Your task to perform on an android device: Open Youtube and go to "Your channel" Image 0: 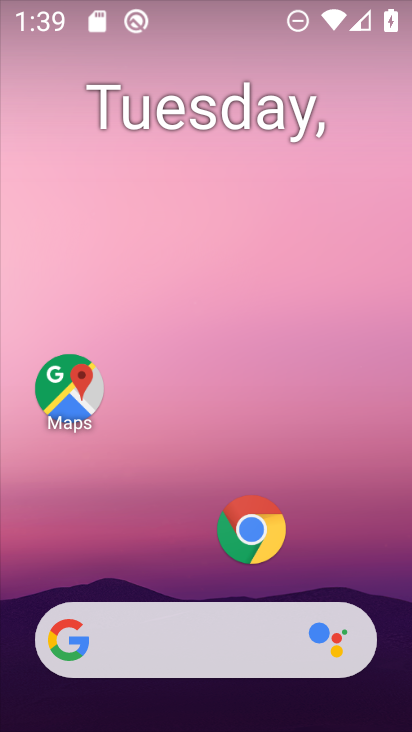
Step 0: drag from (257, 682) to (275, 88)
Your task to perform on an android device: Open Youtube and go to "Your channel" Image 1: 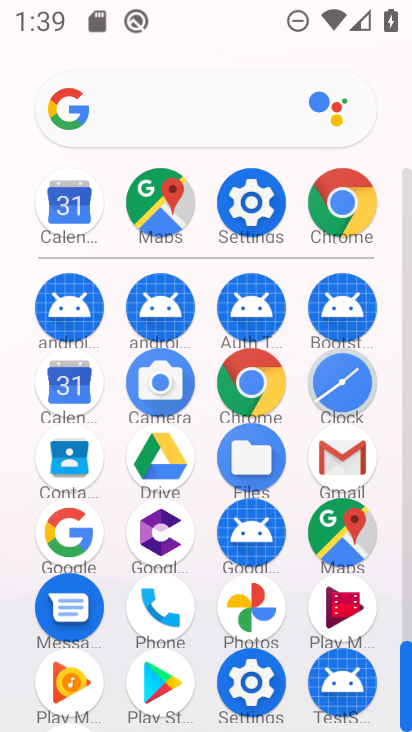
Step 1: drag from (204, 570) to (218, 271)
Your task to perform on an android device: Open Youtube and go to "Your channel" Image 2: 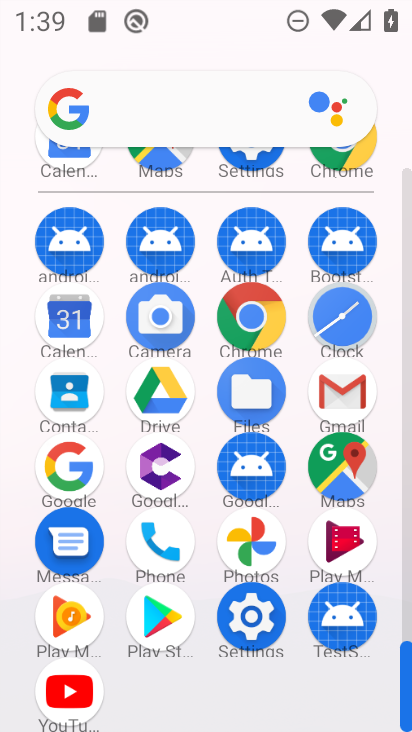
Step 2: click (68, 700)
Your task to perform on an android device: Open Youtube and go to "Your channel" Image 3: 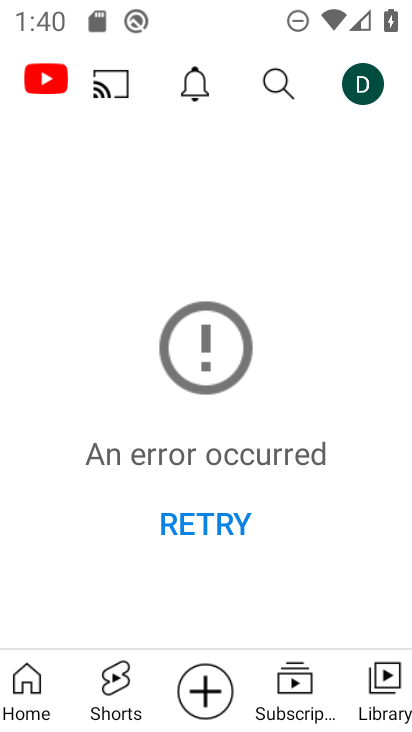
Step 3: click (367, 88)
Your task to perform on an android device: Open Youtube and go to "Your channel" Image 4: 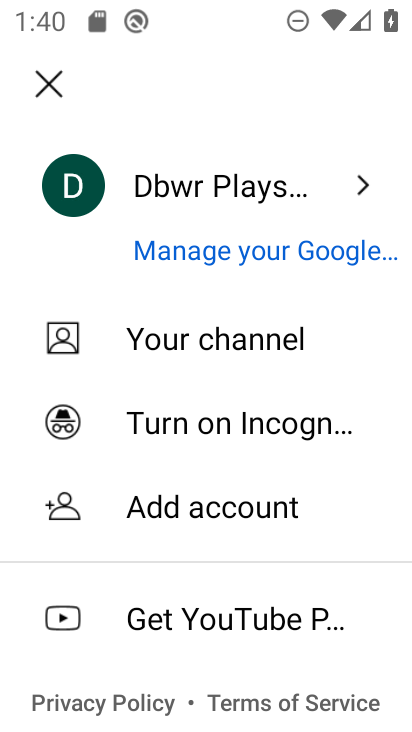
Step 4: click (179, 342)
Your task to perform on an android device: Open Youtube and go to "Your channel" Image 5: 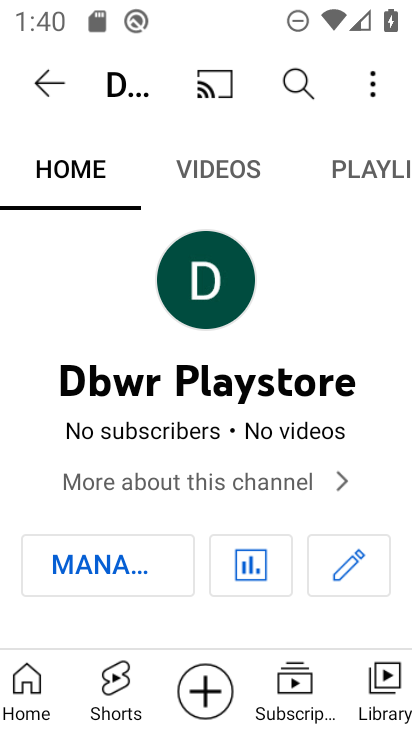
Step 5: task complete